Your task to perform on an android device: turn on the 12-hour format for clock Image 0: 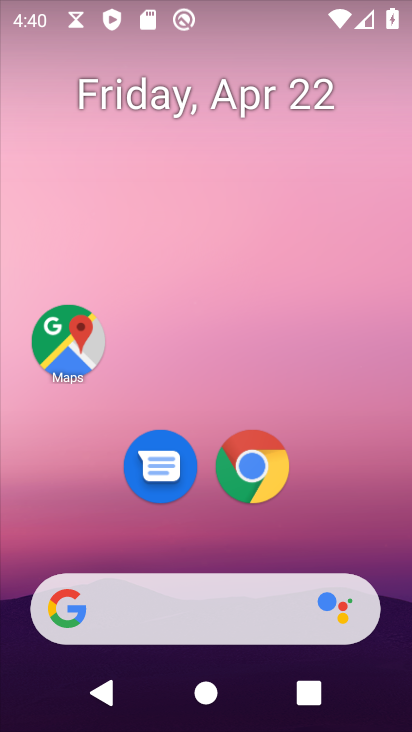
Step 0: drag from (397, 570) to (329, 234)
Your task to perform on an android device: turn on the 12-hour format for clock Image 1: 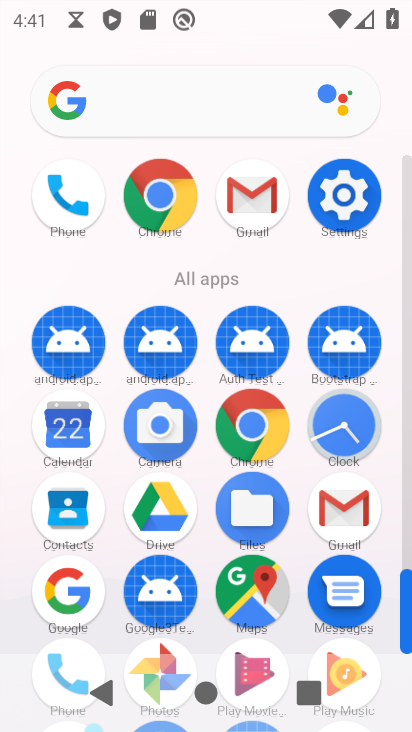
Step 1: click (334, 435)
Your task to perform on an android device: turn on the 12-hour format for clock Image 2: 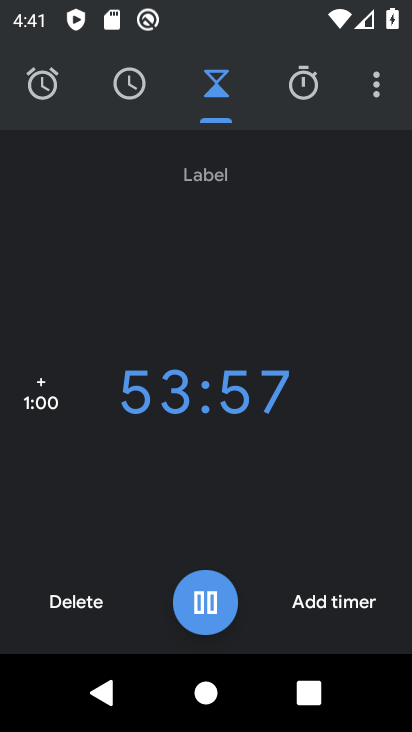
Step 2: click (376, 94)
Your task to perform on an android device: turn on the 12-hour format for clock Image 3: 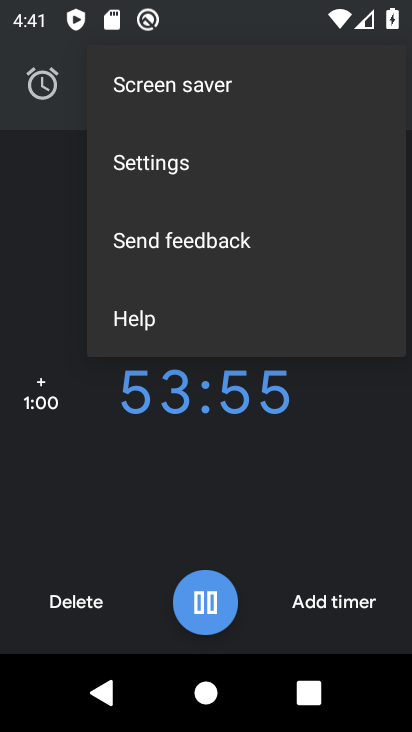
Step 3: click (331, 155)
Your task to perform on an android device: turn on the 12-hour format for clock Image 4: 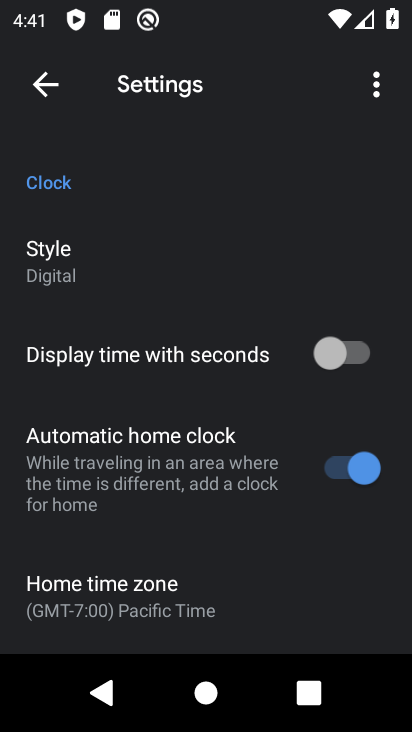
Step 4: drag from (266, 547) to (214, 204)
Your task to perform on an android device: turn on the 12-hour format for clock Image 5: 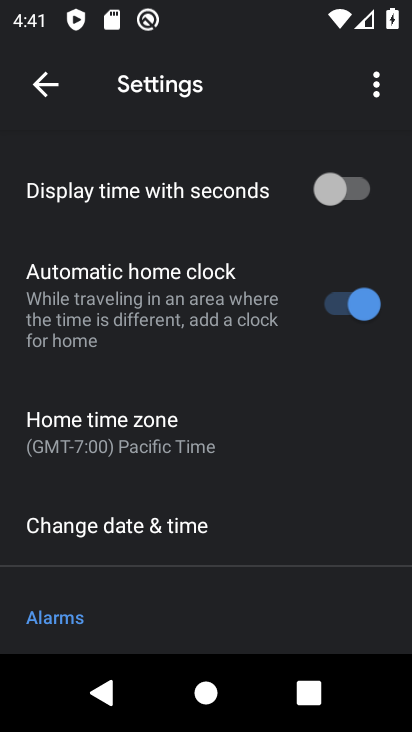
Step 5: click (246, 521)
Your task to perform on an android device: turn on the 12-hour format for clock Image 6: 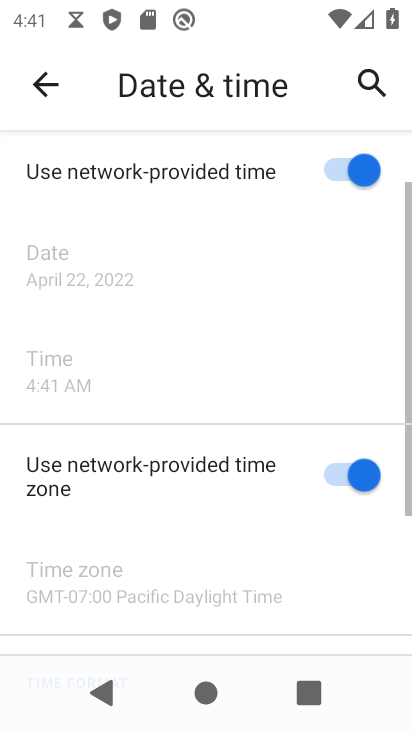
Step 6: task complete